Your task to perform on an android device: Is it going to rain tomorrow? Image 0: 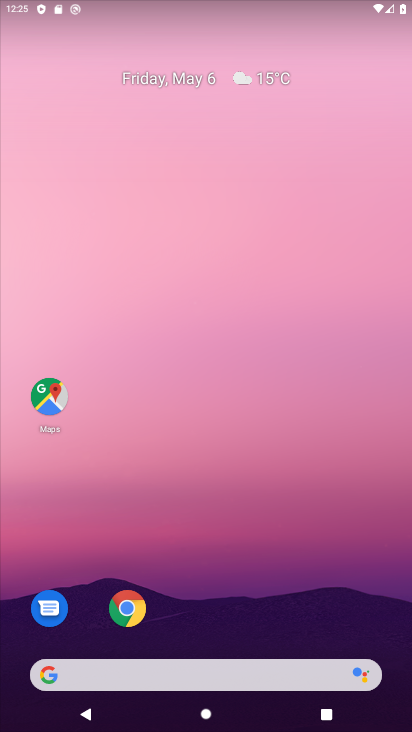
Step 0: drag from (184, 627) to (203, 245)
Your task to perform on an android device: Is it going to rain tomorrow? Image 1: 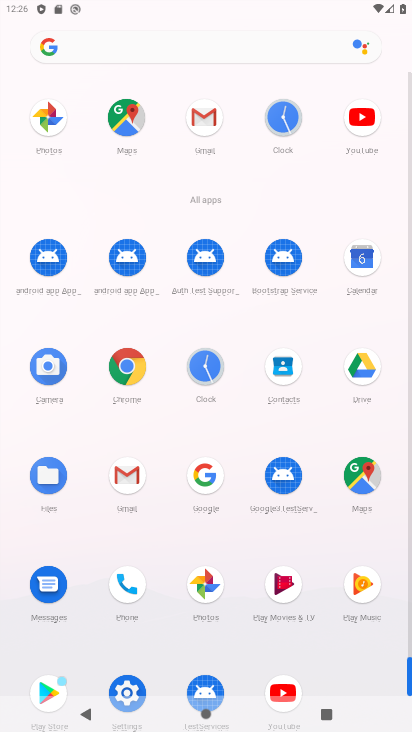
Step 1: click (225, 42)
Your task to perform on an android device: Is it going to rain tomorrow? Image 2: 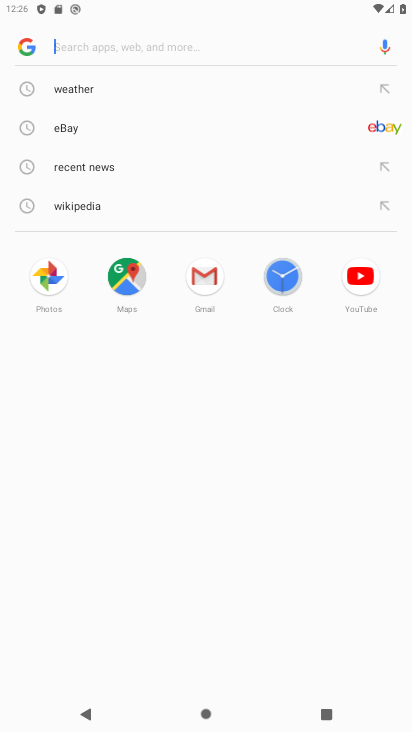
Step 2: type "rain tomorrow"
Your task to perform on an android device: Is it going to rain tomorrow? Image 3: 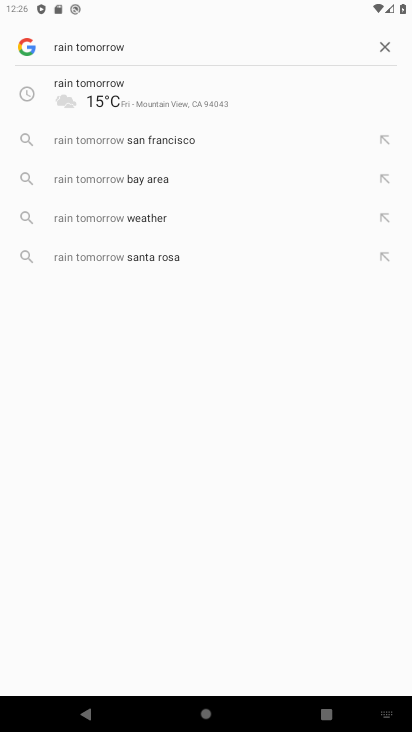
Step 3: click (136, 95)
Your task to perform on an android device: Is it going to rain tomorrow? Image 4: 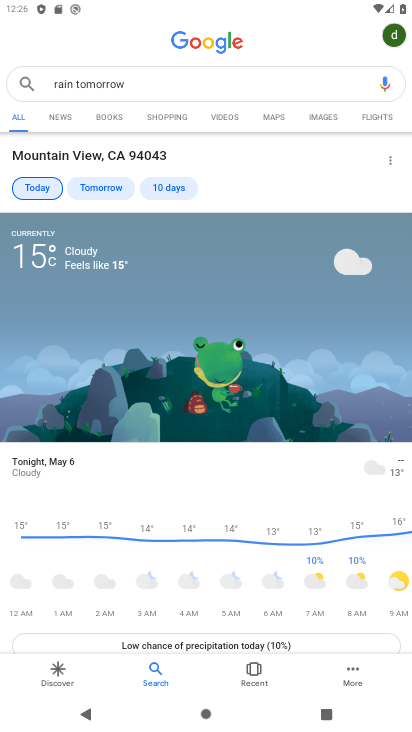
Step 4: task complete